Your task to perform on an android device: Open Google Image 0: 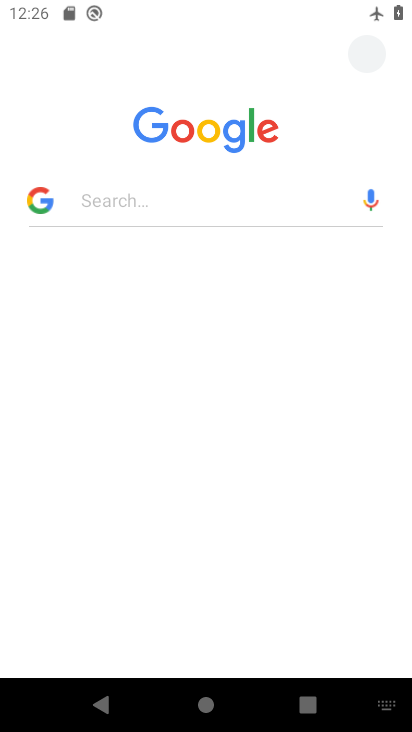
Step 0: press home button
Your task to perform on an android device: Open Google Image 1: 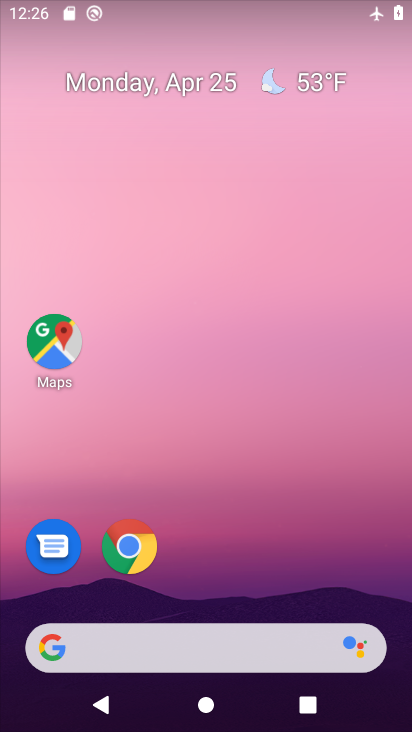
Step 1: drag from (236, 434) to (236, 59)
Your task to perform on an android device: Open Google Image 2: 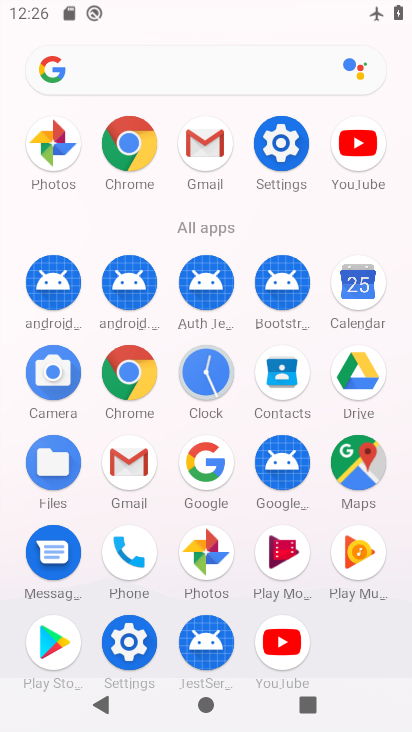
Step 2: click (209, 458)
Your task to perform on an android device: Open Google Image 3: 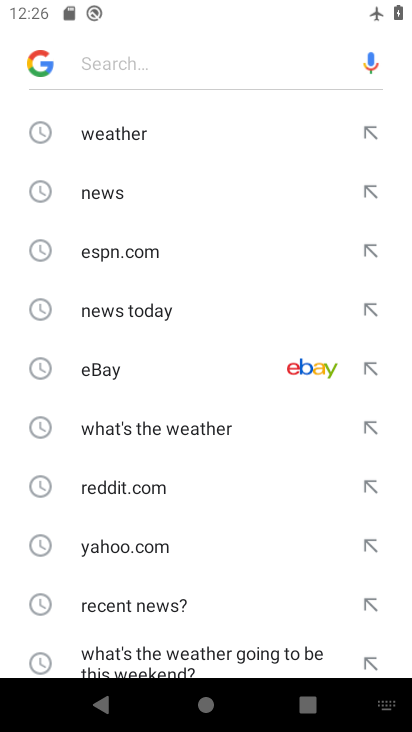
Step 3: task complete